Your task to perform on an android device: turn on sleep mode Image 0: 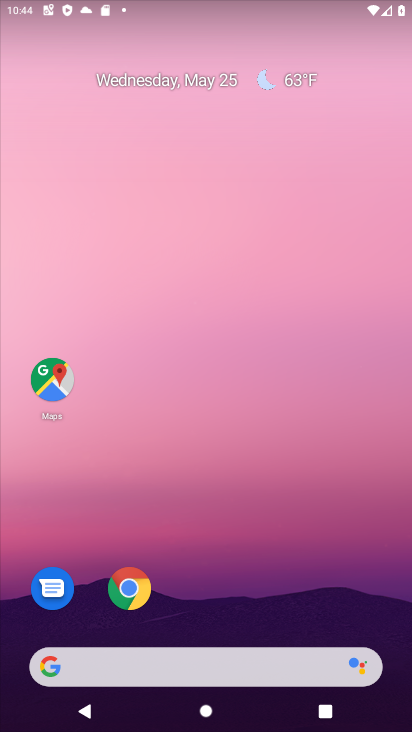
Step 0: drag from (364, 594) to (367, 83)
Your task to perform on an android device: turn on sleep mode Image 1: 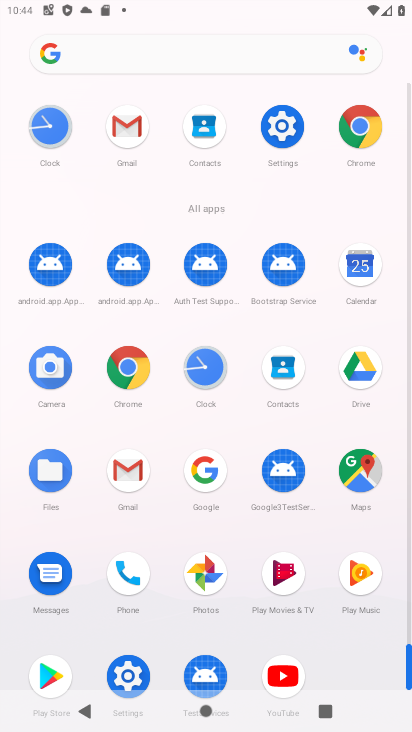
Step 1: click (301, 122)
Your task to perform on an android device: turn on sleep mode Image 2: 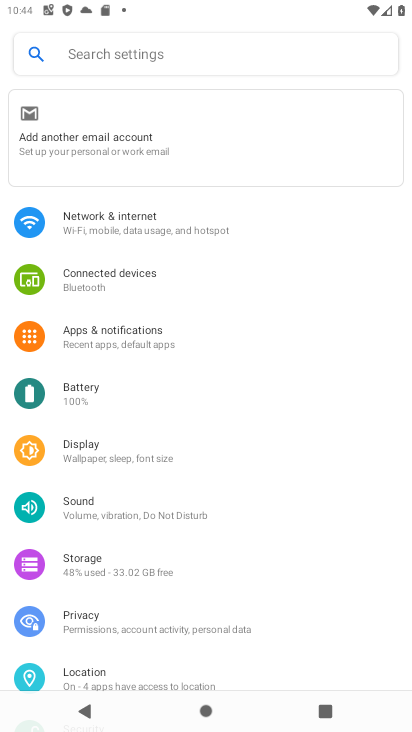
Step 2: click (93, 453)
Your task to perform on an android device: turn on sleep mode Image 3: 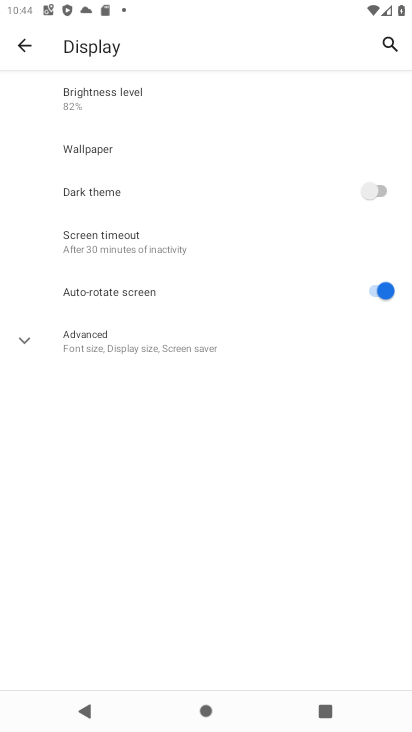
Step 3: click (121, 338)
Your task to perform on an android device: turn on sleep mode Image 4: 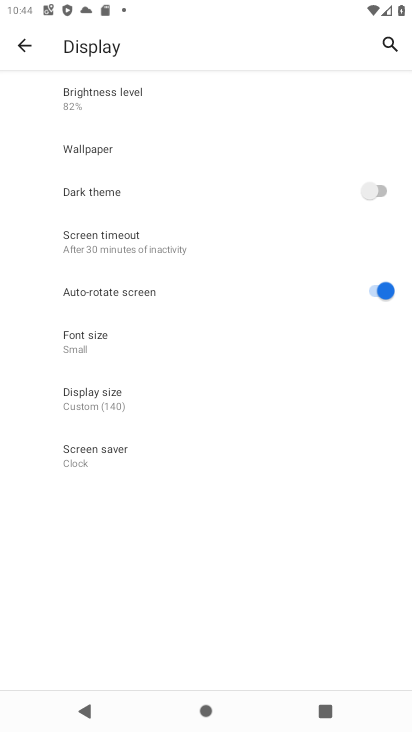
Step 4: task complete